Your task to perform on an android device: Open calendar and show me the fourth week of next month Image 0: 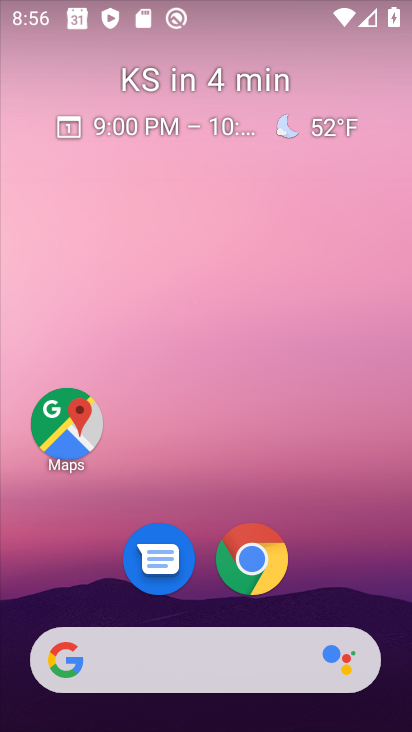
Step 0: drag from (321, 513) to (322, 13)
Your task to perform on an android device: Open calendar and show me the fourth week of next month Image 1: 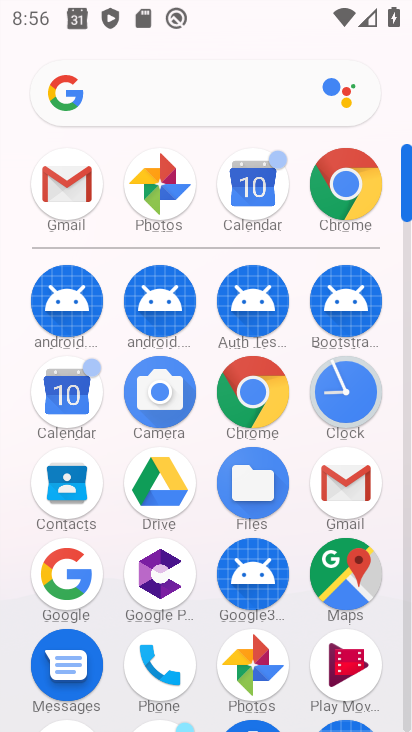
Step 1: drag from (26, 589) to (24, 290)
Your task to perform on an android device: Open calendar and show me the fourth week of next month Image 2: 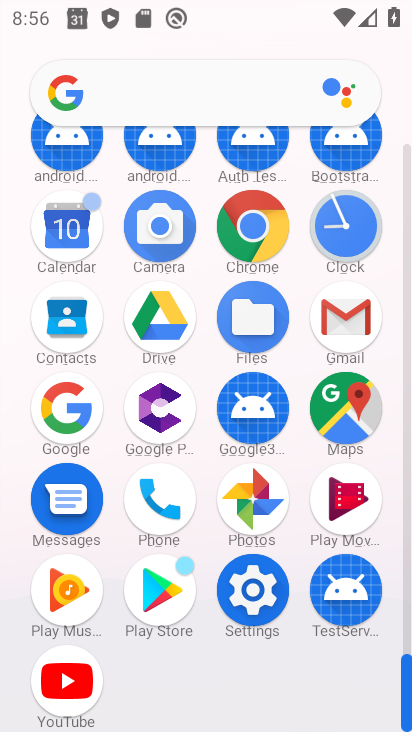
Step 2: click (67, 224)
Your task to perform on an android device: Open calendar and show me the fourth week of next month Image 3: 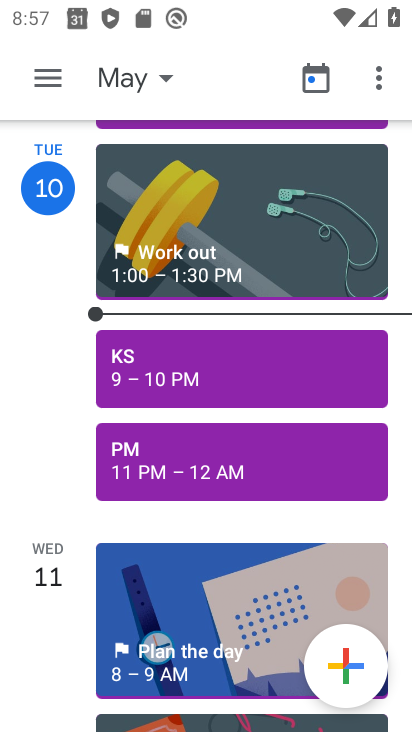
Step 3: click (136, 81)
Your task to perform on an android device: Open calendar and show me the fourth week of next month Image 4: 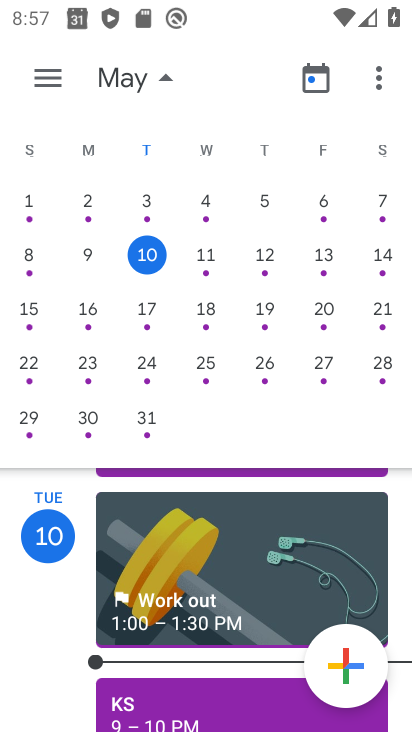
Step 4: drag from (392, 313) to (20, 162)
Your task to perform on an android device: Open calendar and show me the fourth week of next month Image 5: 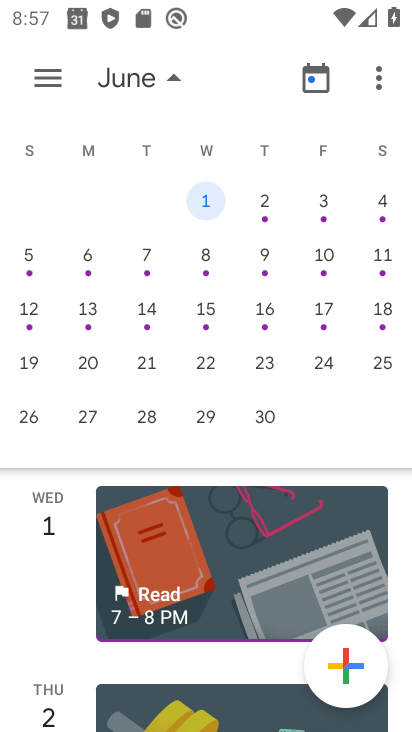
Step 5: click (28, 371)
Your task to perform on an android device: Open calendar and show me the fourth week of next month Image 6: 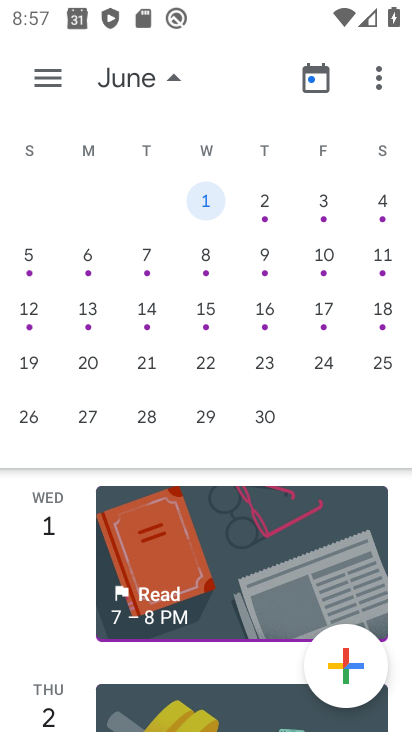
Step 6: click (30, 360)
Your task to perform on an android device: Open calendar and show me the fourth week of next month Image 7: 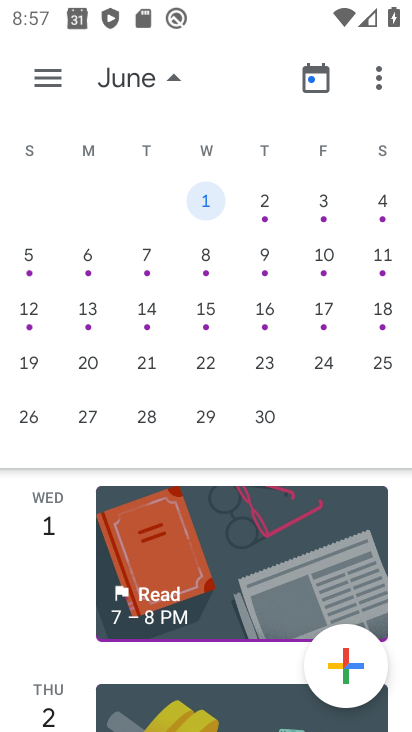
Step 7: click (32, 360)
Your task to perform on an android device: Open calendar and show me the fourth week of next month Image 8: 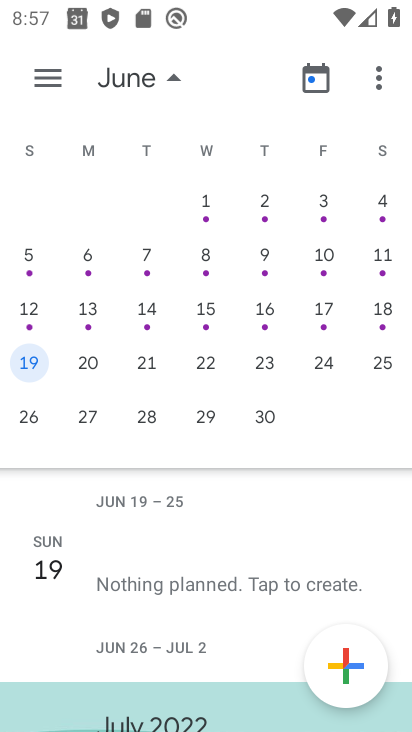
Step 8: click (43, 77)
Your task to perform on an android device: Open calendar and show me the fourth week of next month Image 9: 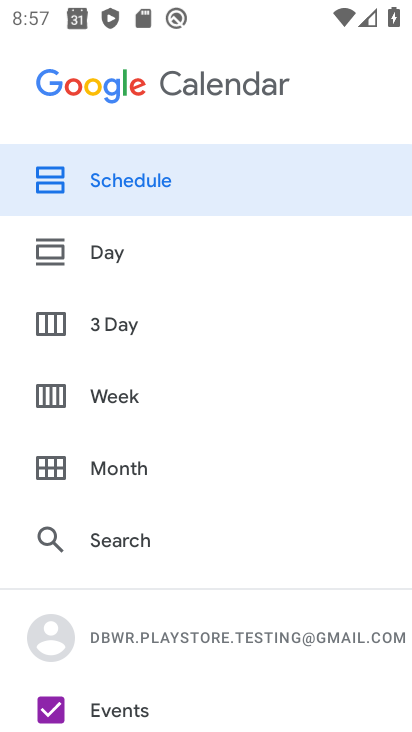
Step 9: click (130, 392)
Your task to perform on an android device: Open calendar and show me the fourth week of next month Image 10: 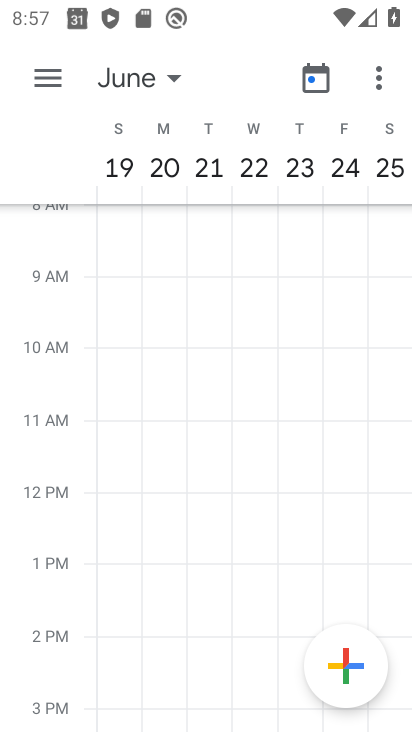
Step 10: task complete